Your task to perform on an android device: Open Android settings Image 0: 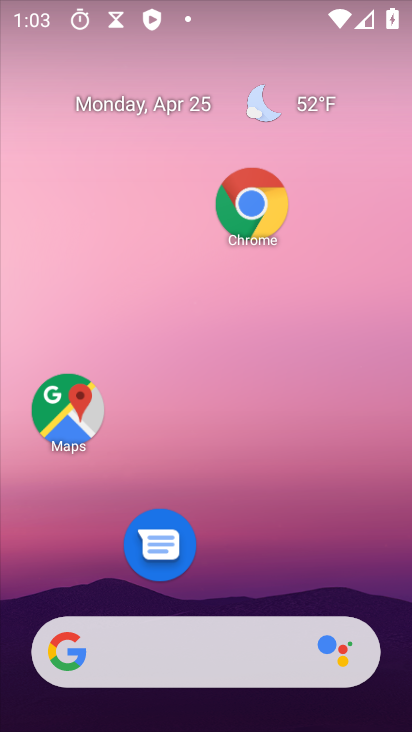
Step 0: drag from (307, 679) to (355, 178)
Your task to perform on an android device: Open Android settings Image 1: 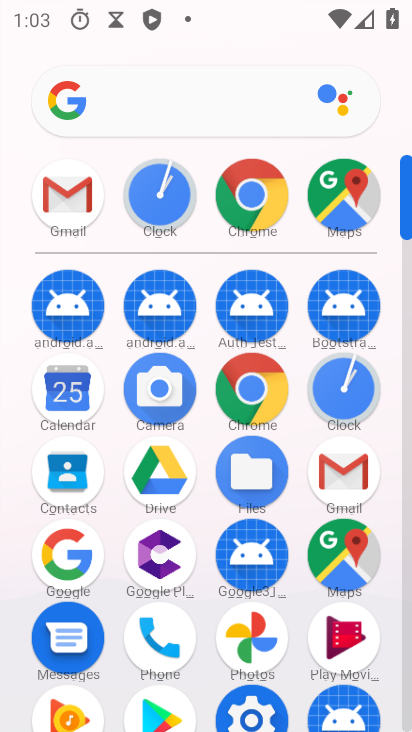
Step 1: click (255, 691)
Your task to perform on an android device: Open Android settings Image 2: 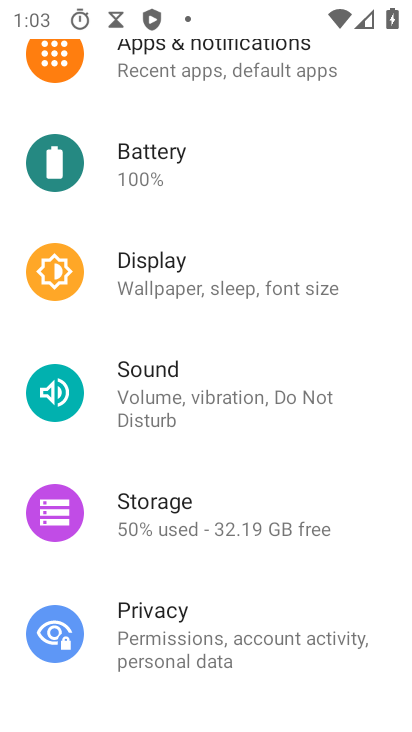
Step 2: drag from (187, 394) to (180, 584)
Your task to perform on an android device: Open Android settings Image 3: 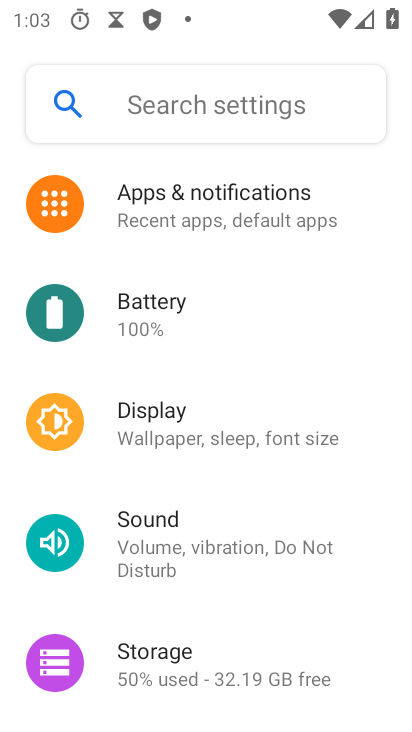
Step 3: click (168, 126)
Your task to perform on an android device: Open Android settings Image 4: 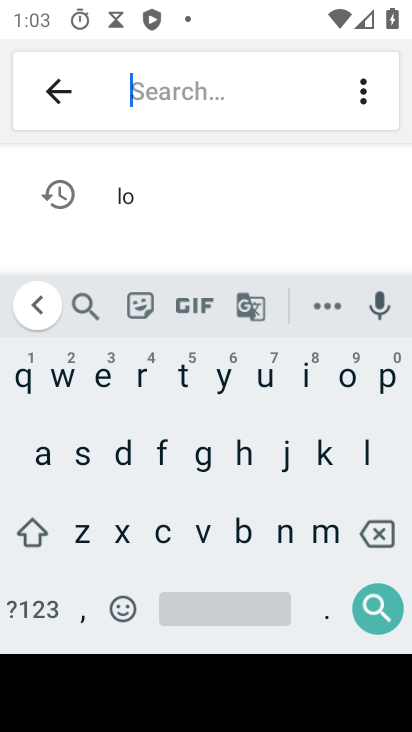
Step 4: click (44, 452)
Your task to perform on an android device: Open Android settings Image 5: 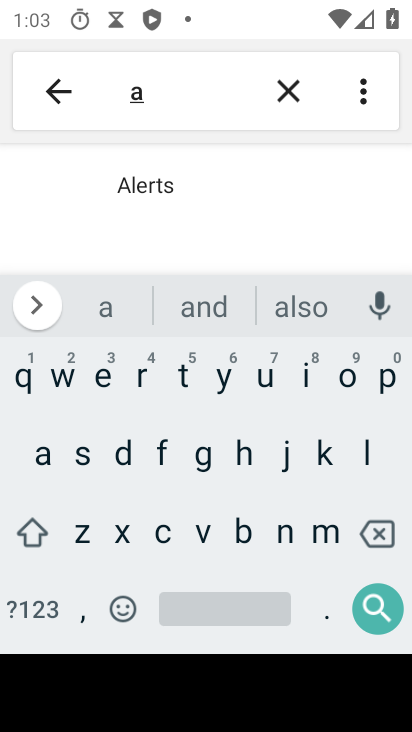
Step 5: click (281, 531)
Your task to perform on an android device: Open Android settings Image 6: 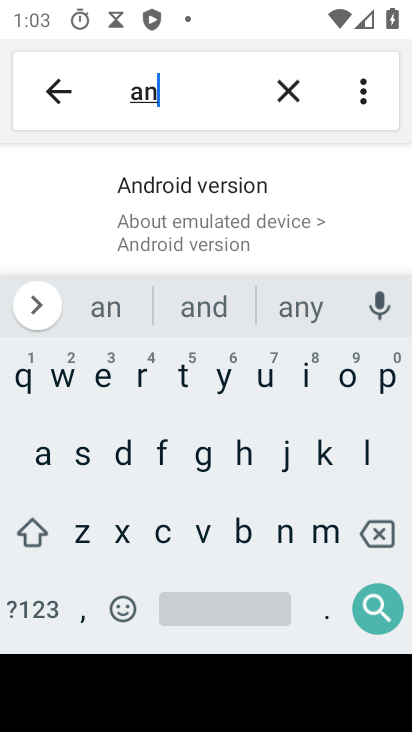
Step 6: click (241, 212)
Your task to perform on an android device: Open Android settings Image 7: 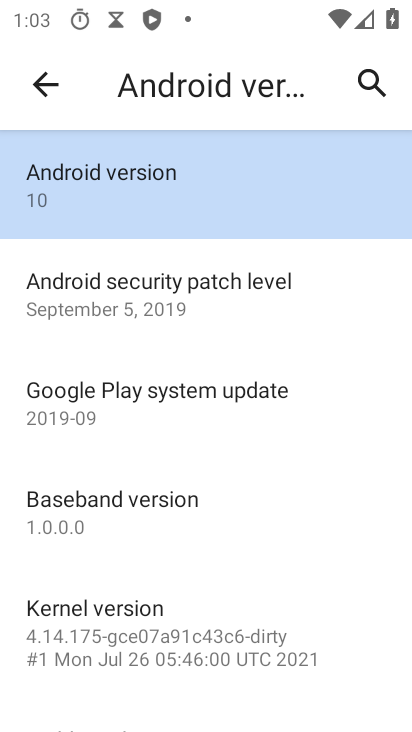
Step 7: task complete